Your task to perform on an android device: Search for Mexican restaurants on Maps Image 0: 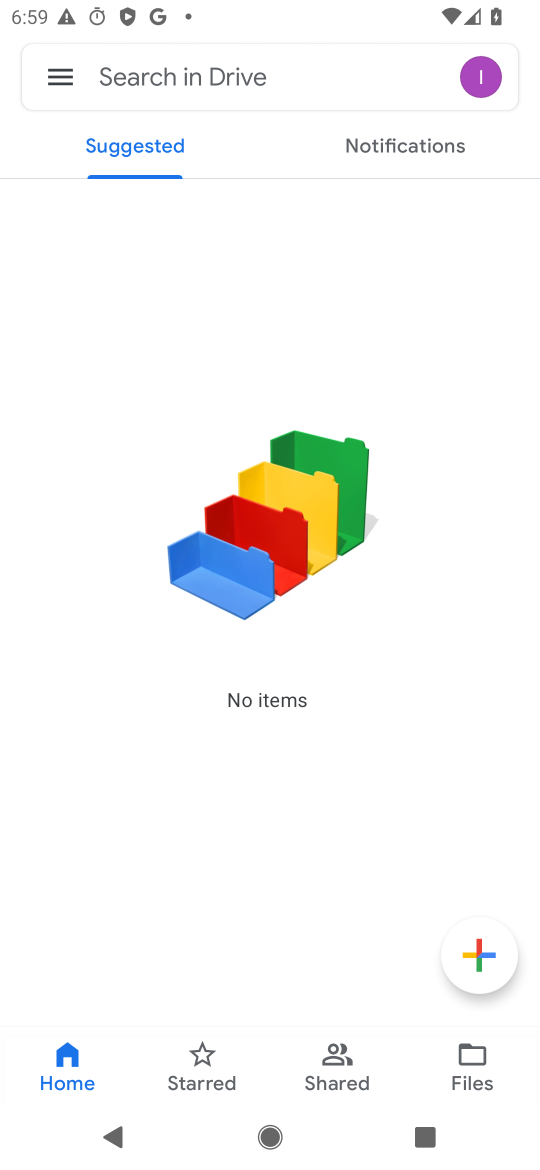
Step 0: press home button
Your task to perform on an android device: Search for Mexican restaurants on Maps Image 1: 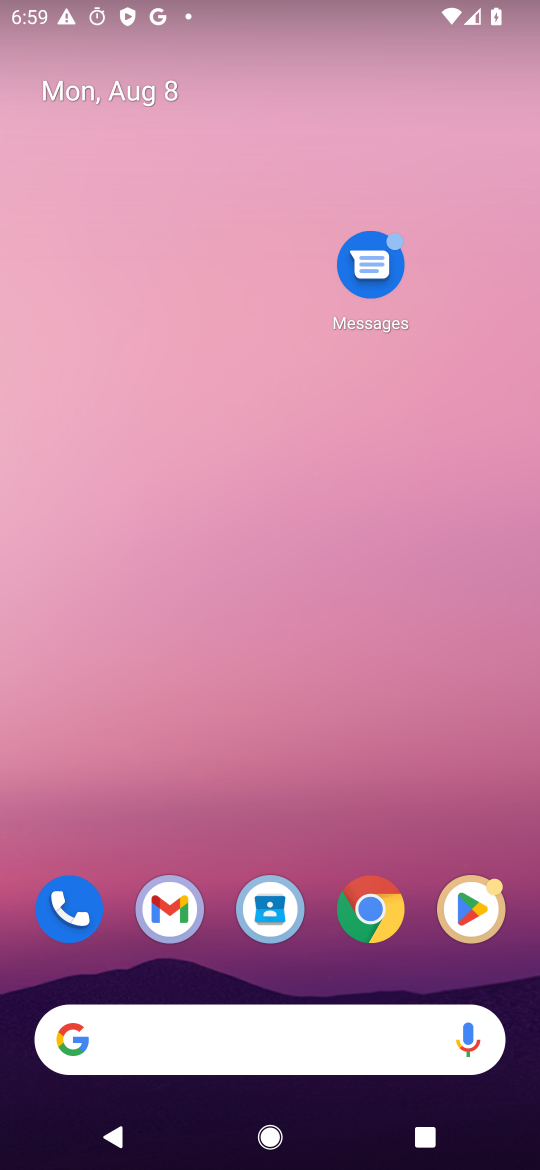
Step 1: drag from (279, 1057) to (490, 60)
Your task to perform on an android device: Search for Mexican restaurants on Maps Image 2: 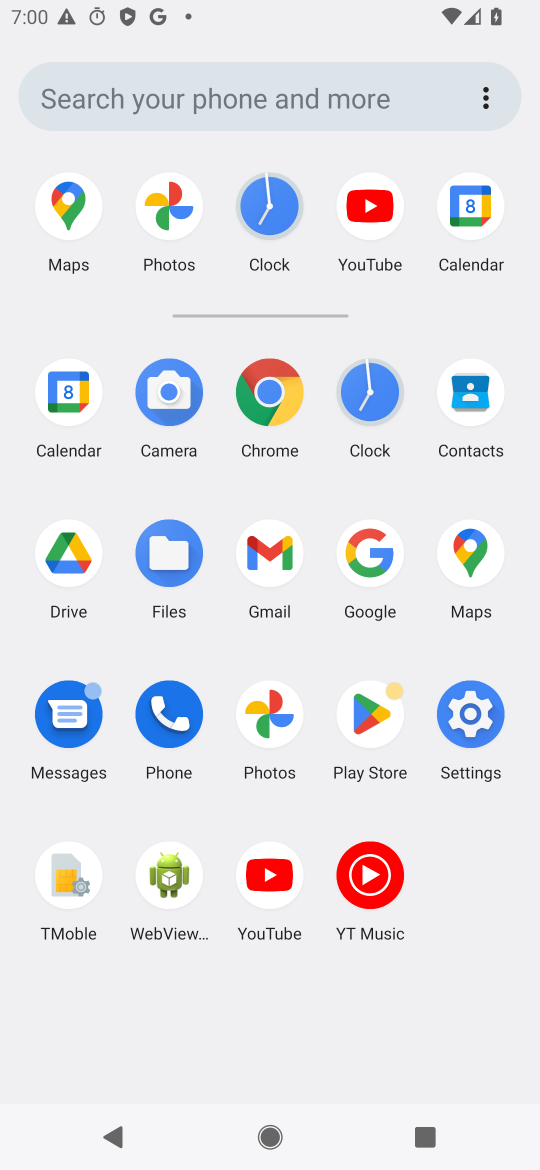
Step 2: click (477, 555)
Your task to perform on an android device: Search for Mexican restaurants on Maps Image 3: 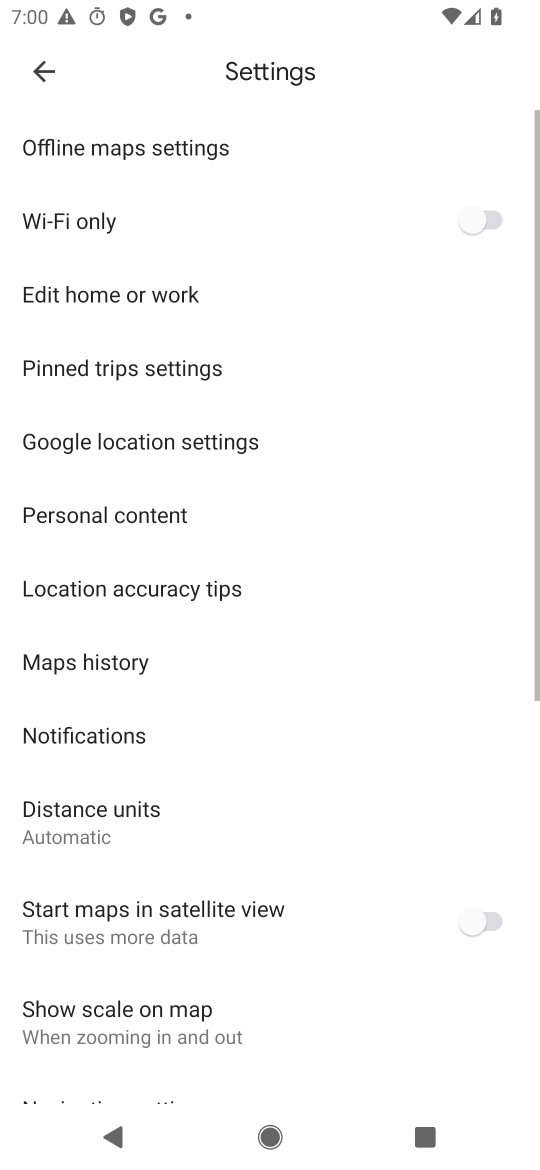
Step 3: click (56, 70)
Your task to perform on an android device: Search for Mexican restaurants on Maps Image 4: 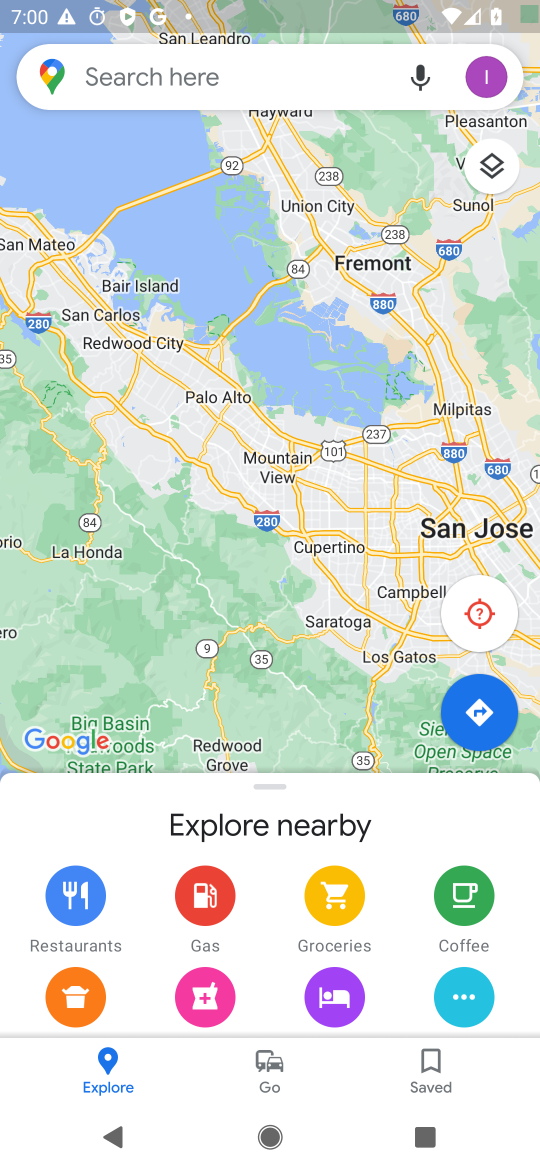
Step 4: click (179, 58)
Your task to perform on an android device: Search for Mexican restaurants on Maps Image 5: 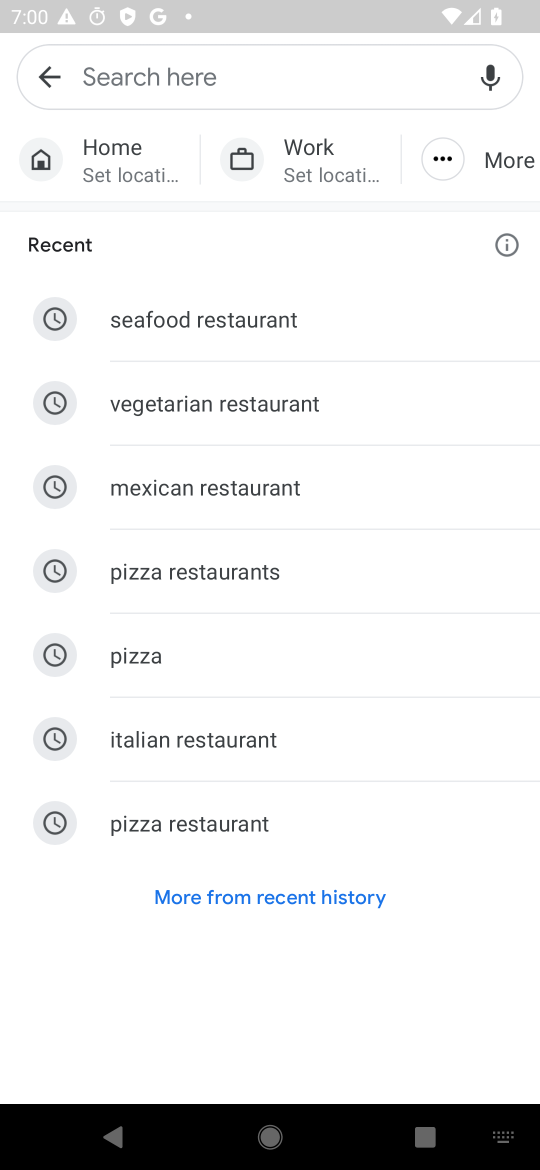
Step 5: click (186, 489)
Your task to perform on an android device: Search for Mexican restaurants on Maps Image 6: 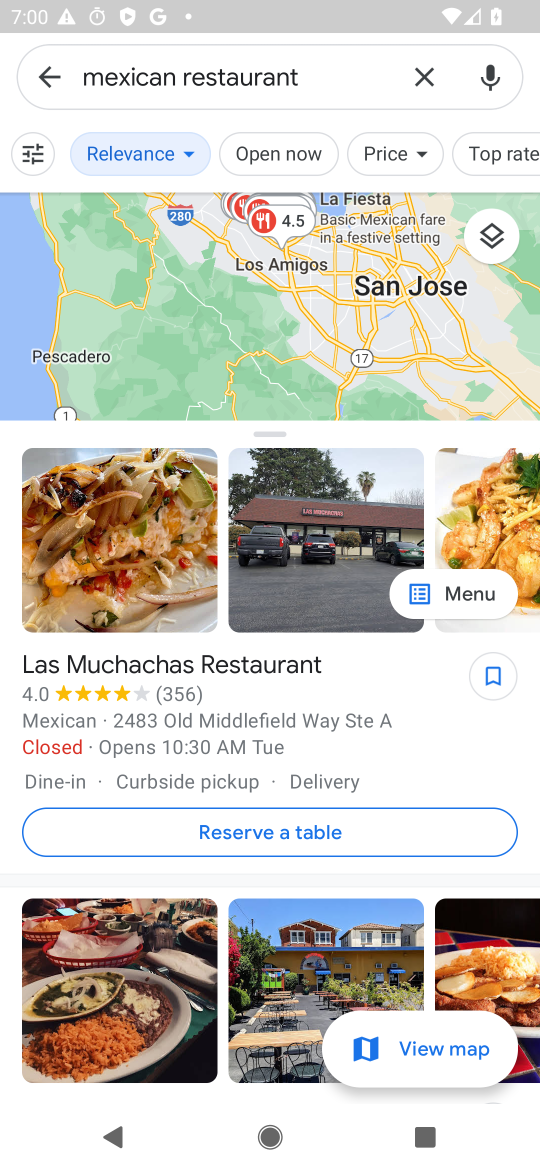
Step 6: task complete